Your task to perform on an android device: Open Youtube and go to the subscriptions tab Image 0: 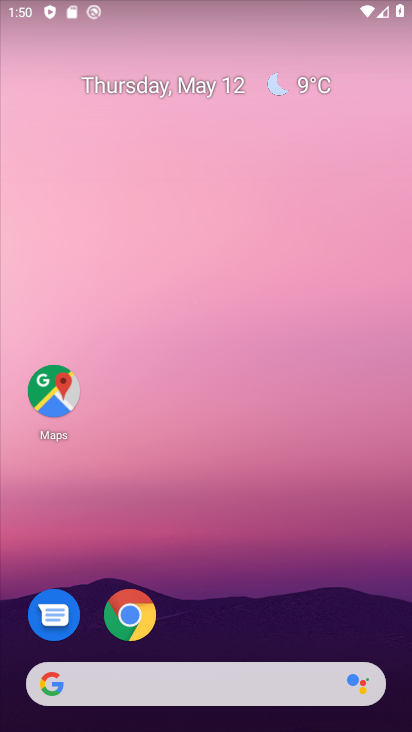
Step 0: drag from (209, 678) to (194, 79)
Your task to perform on an android device: Open Youtube and go to the subscriptions tab Image 1: 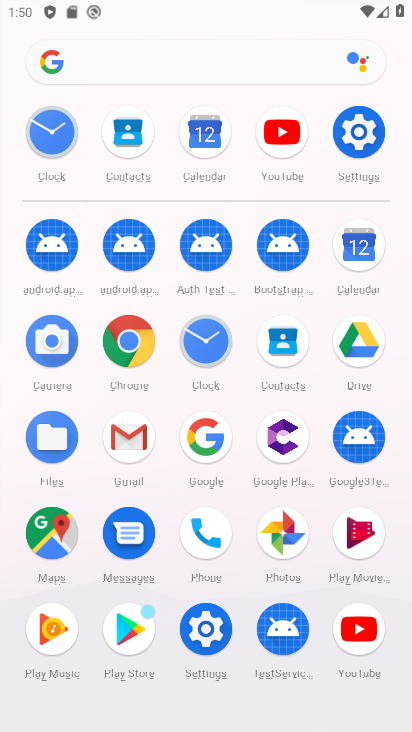
Step 1: click (361, 639)
Your task to perform on an android device: Open Youtube and go to the subscriptions tab Image 2: 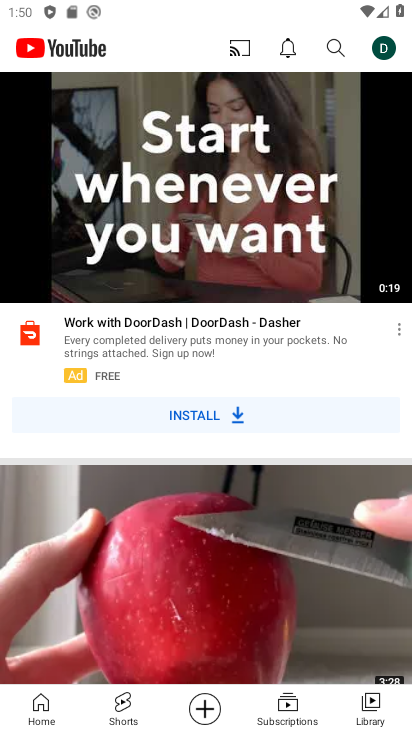
Step 2: click (301, 701)
Your task to perform on an android device: Open Youtube and go to the subscriptions tab Image 3: 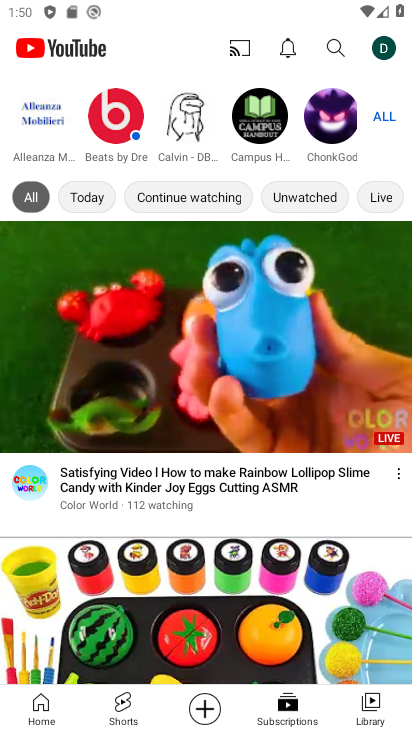
Step 3: task complete